Your task to perform on an android device: Clear all items from cart on bestbuy. Add "jbl charge 4" to the cart on bestbuy, then select checkout. Image 0: 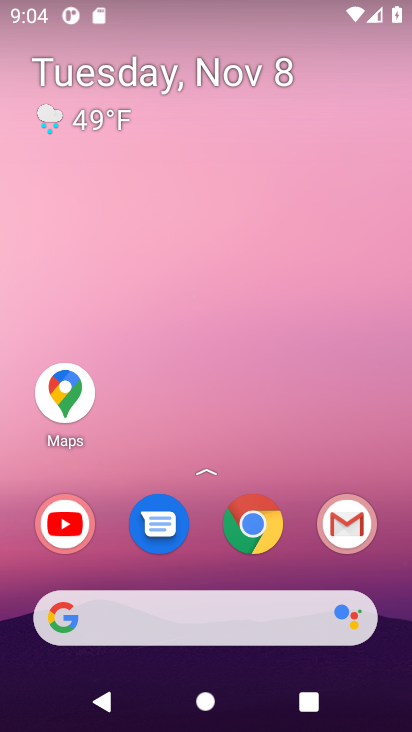
Step 0: click (253, 530)
Your task to perform on an android device: Clear all items from cart on bestbuy. Add "jbl charge 4" to the cart on bestbuy, then select checkout. Image 1: 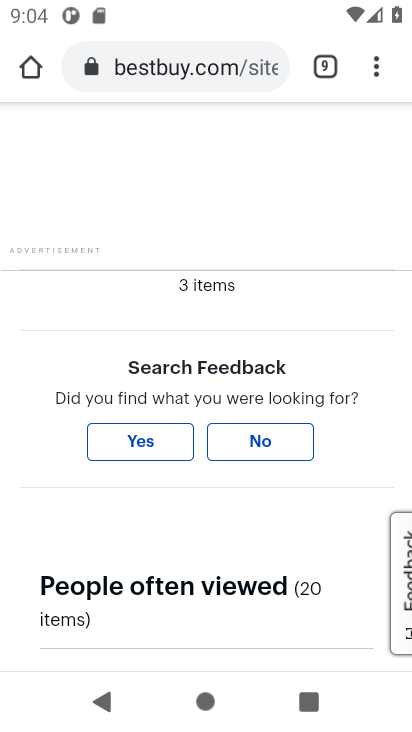
Step 1: drag from (157, 180) to (165, 654)
Your task to perform on an android device: Clear all items from cart on bestbuy. Add "jbl charge 4" to the cart on bestbuy, then select checkout. Image 2: 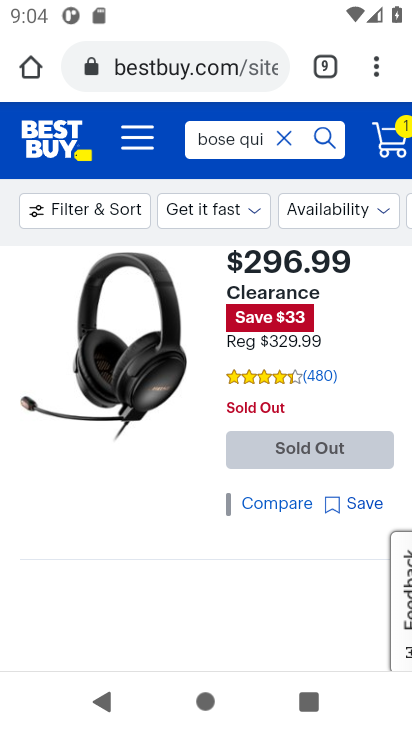
Step 2: click (395, 142)
Your task to perform on an android device: Clear all items from cart on bestbuy. Add "jbl charge 4" to the cart on bestbuy, then select checkout. Image 3: 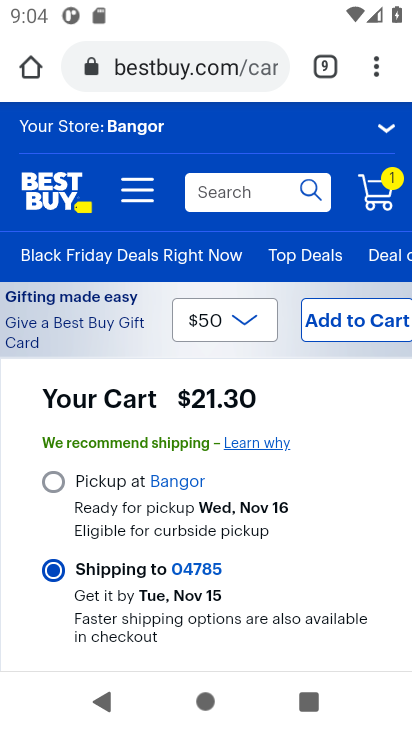
Step 3: drag from (176, 498) to (156, 246)
Your task to perform on an android device: Clear all items from cart on bestbuy. Add "jbl charge 4" to the cart on bestbuy, then select checkout. Image 4: 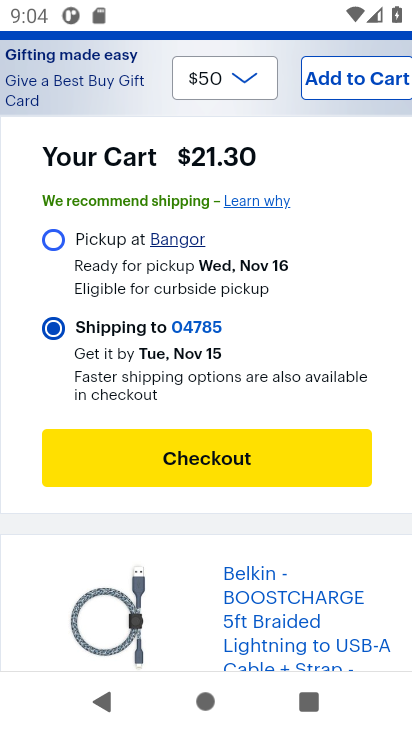
Step 4: drag from (177, 530) to (150, 169)
Your task to perform on an android device: Clear all items from cart on bestbuy. Add "jbl charge 4" to the cart on bestbuy, then select checkout. Image 5: 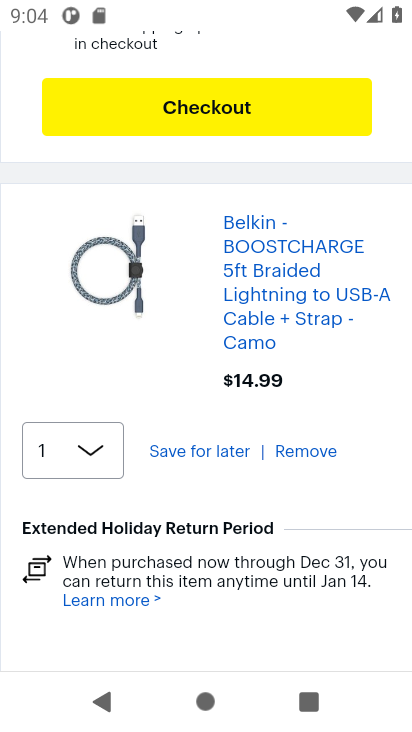
Step 5: click (313, 454)
Your task to perform on an android device: Clear all items from cart on bestbuy. Add "jbl charge 4" to the cart on bestbuy, then select checkout. Image 6: 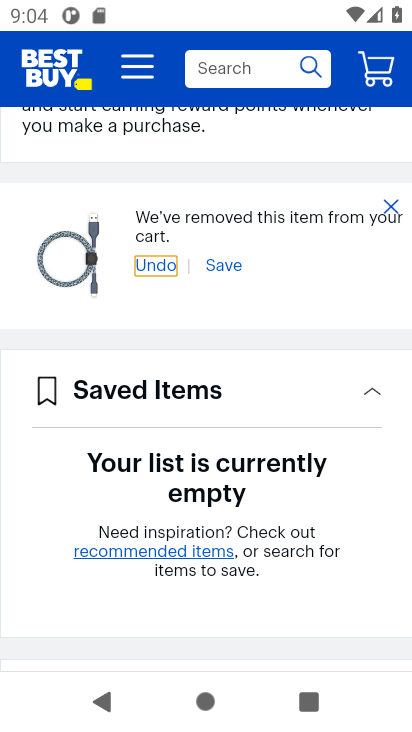
Step 6: click (229, 78)
Your task to perform on an android device: Clear all items from cart on bestbuy. Add "jbl charge 4" to the cart on bestbuy, then select checkout. Image 7: 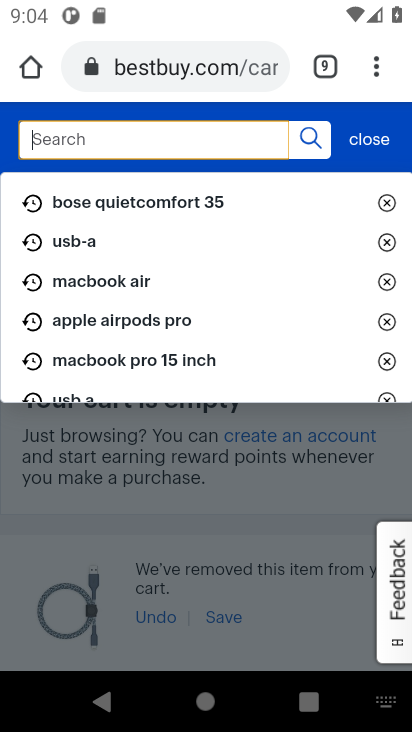
Step 7: type "jbl charge 4"
Your task to perform on an android device: Clear all items from cart on bestbuy. Add "jbl charge 4" to the cart on bestbuy, then select checkout. Image 8: 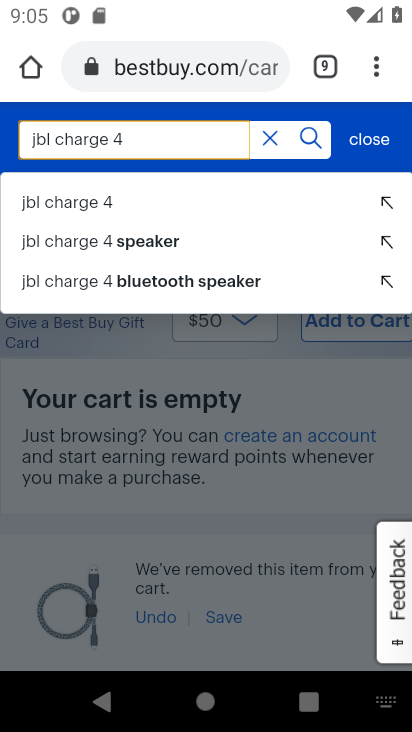
Step 8: click (80, 201)
Your task to perform on an android device: Clear all items from cart on bestbuy. Add "jbl charge 4" to the cart on bestbuy, then select checkout. Image 9: 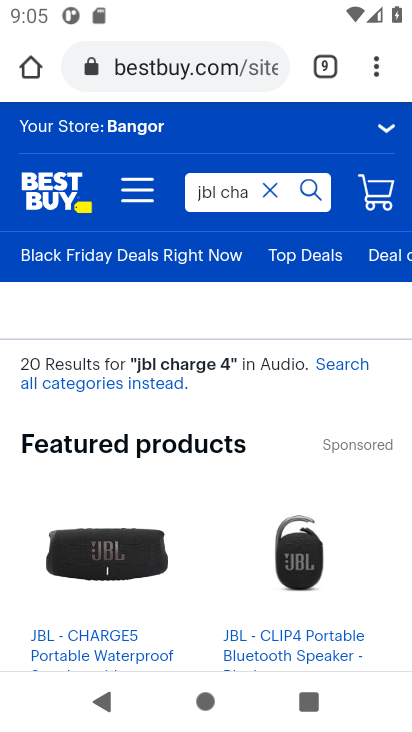
Step 9: task complete